Your task to perform on an android device: empty trash in google photos Image 0: 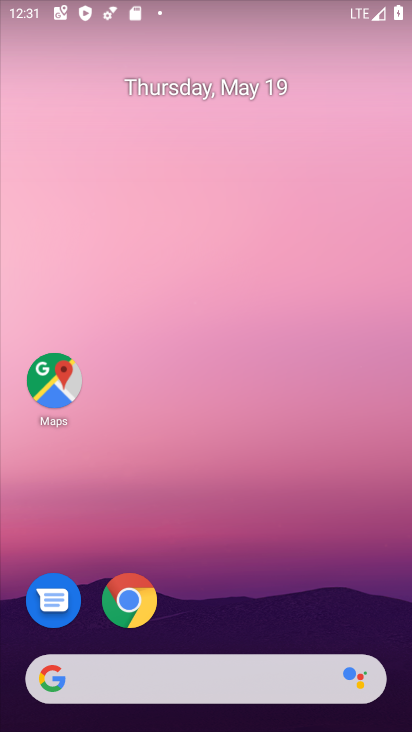
Step 0: drag from (220, 506) to (154, 39)
Your task to perform on an android device: empty trash in google photos Image 1: 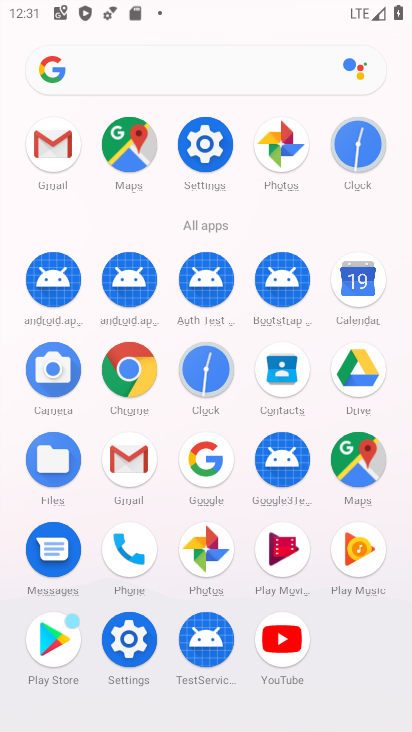
Step 1: click (203, 532)
Your task to perform on an android device: empty trash in google photos Image 2: 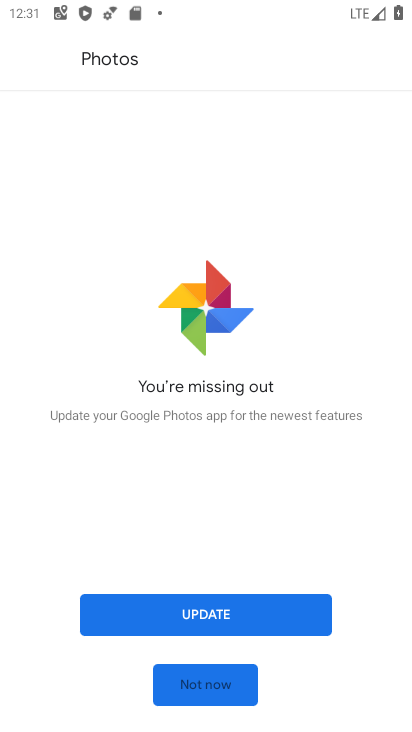
Step 2: click (217, 612)
Your task to perform on an android device: empty trash in google photos Image 3: 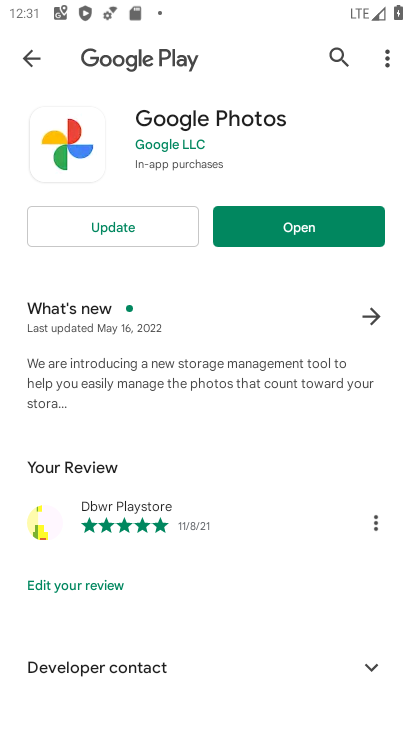
Step 3: click (121, 217)
Your task to perform on an android device: empty trash in google photos Image 4: 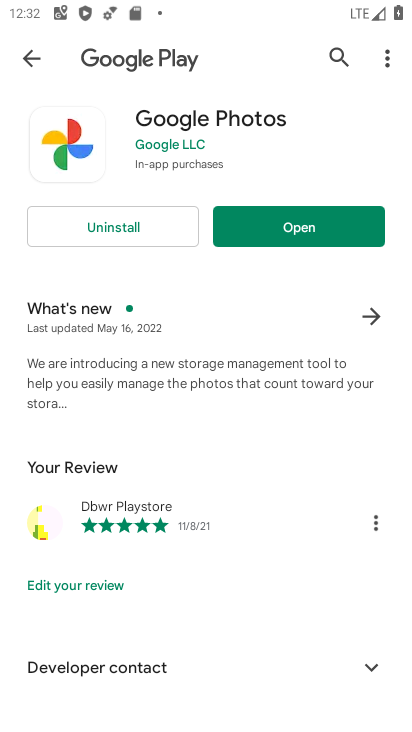
Step 4: click (288, 218)
Your task to perform on an android device: empty trash in google photos Image 5: 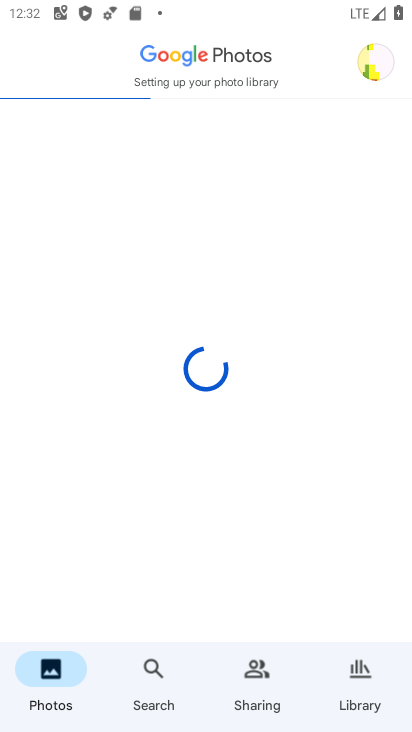
Step 5: click (353, 673)
Your task to perform on an android device: empty trash in google photos Image 6: 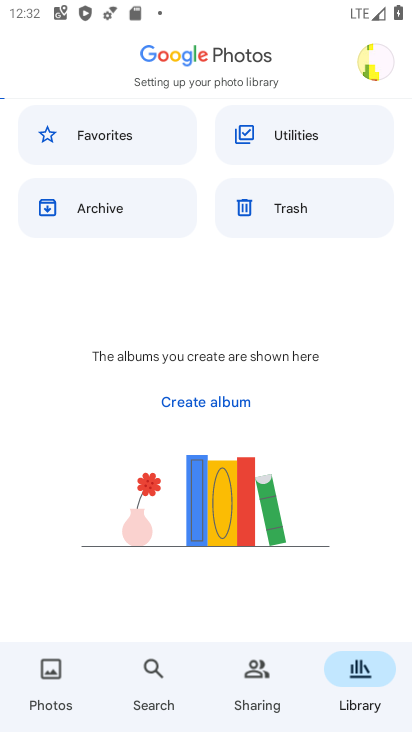
Step 6: click (267, 194)
Your task to perform on an android device: empty trash in google photos Image 7: 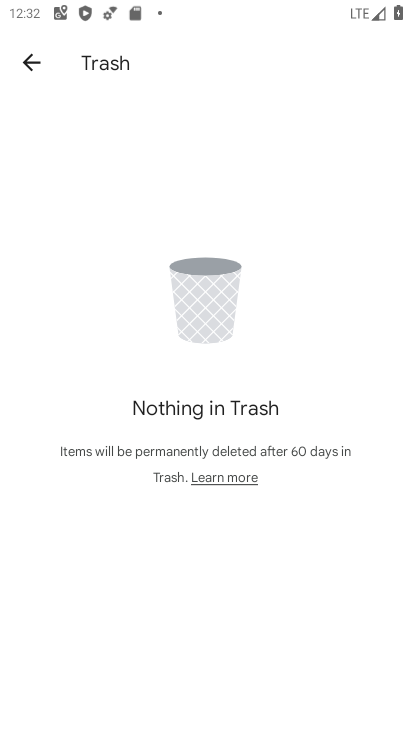
Step 7: task complete